Your task to perform on an android device: set the timer Image 0: 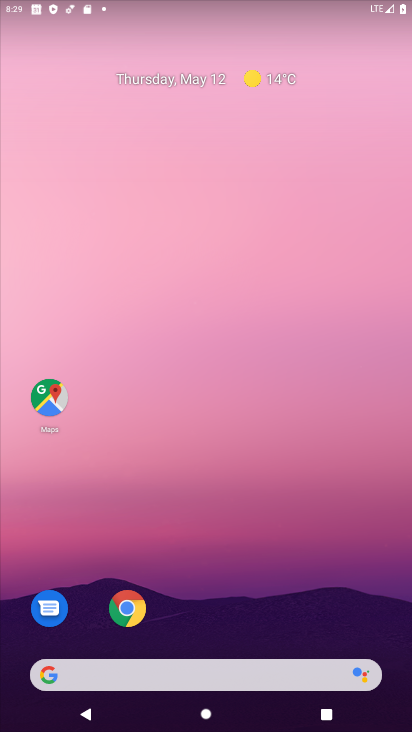
Step 0: drag from (226, 663) to (256, 179)
Your task to perform on an android device: set the timer Image 1: 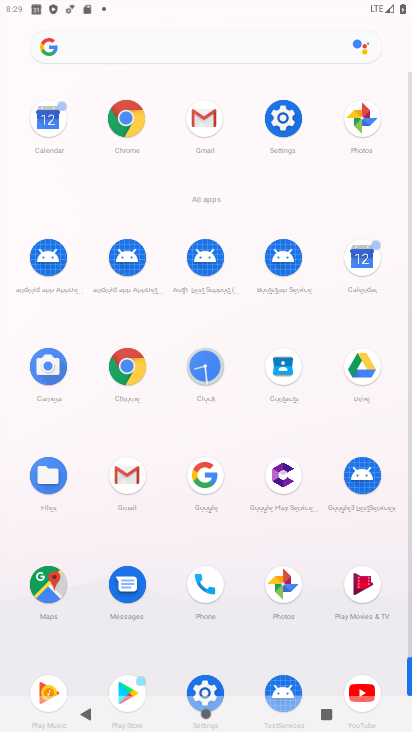
Step 1: click (210, 365)
Your task to perform on an android device: set the timer Image 2: 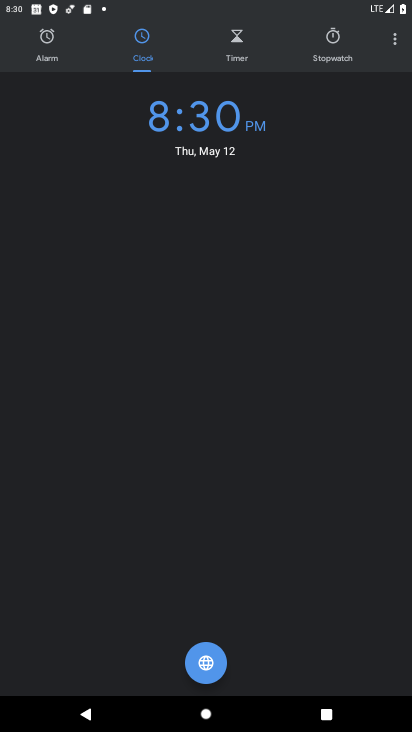
Step 2: click (236, 34)
Your task to perform on an android device: set the timer Image 3: 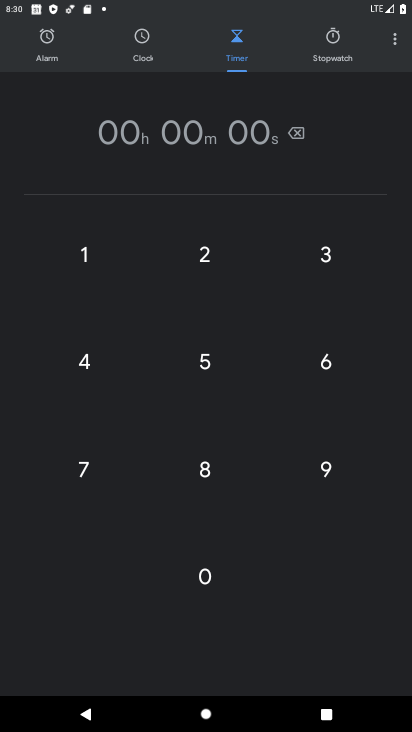
Step 3: click (207, 582)
Your task to perform on an android device: set the timer Image 4: 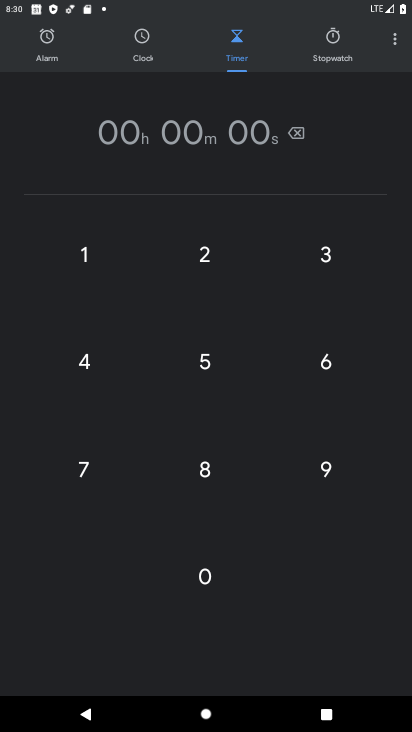
Step 4: click (197, 363)
Your task to perform on an android device: set the timer Image 5: 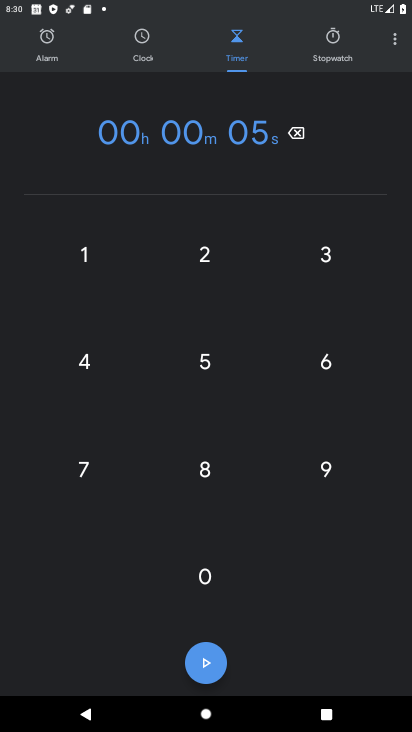
Step 5: click (203, 578)
Your task to perform on an android device: set the timer Image 6: 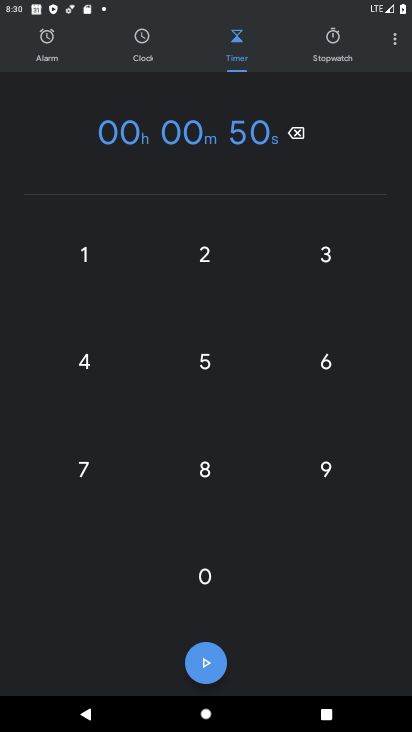
Step 6: click (207, 475)
Your task to perform on an android device: set the timer Image 7: 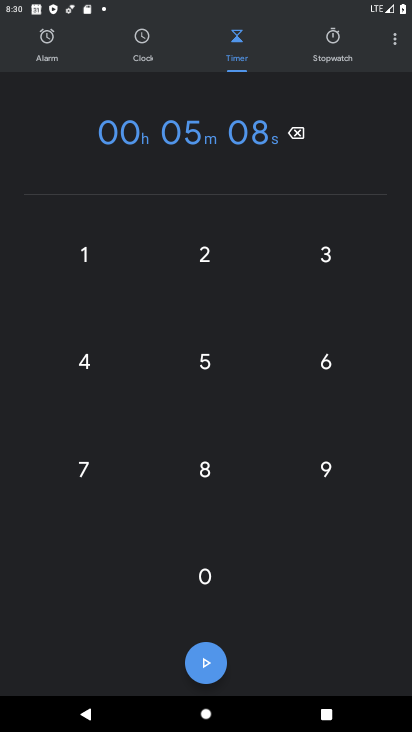
Step 7: click (207, 666)
Your task to perform on an android device: set the timer Image 8: 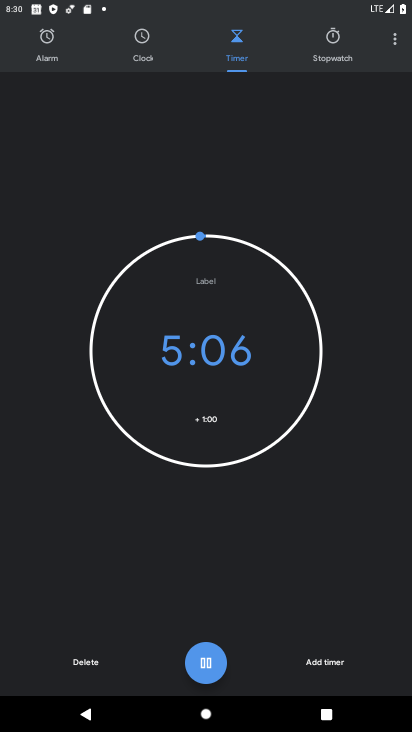
Step 8: task complete